Your task to perform on an android device: check battery use Image 0: 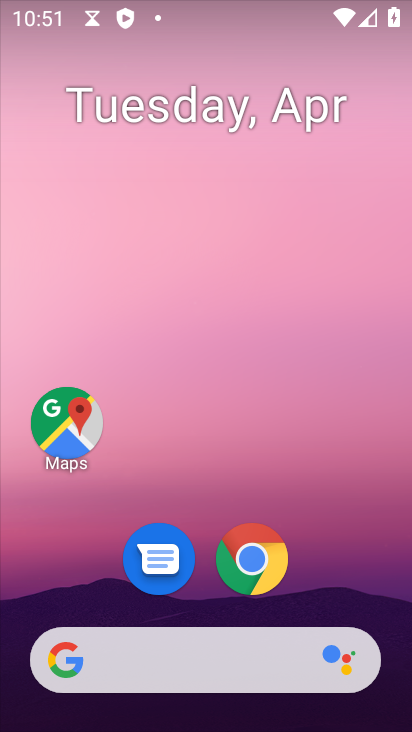
Step 0: drag from (328, 457) to (278, 79)
Your task to perform on an android device: check battery use Image 1: 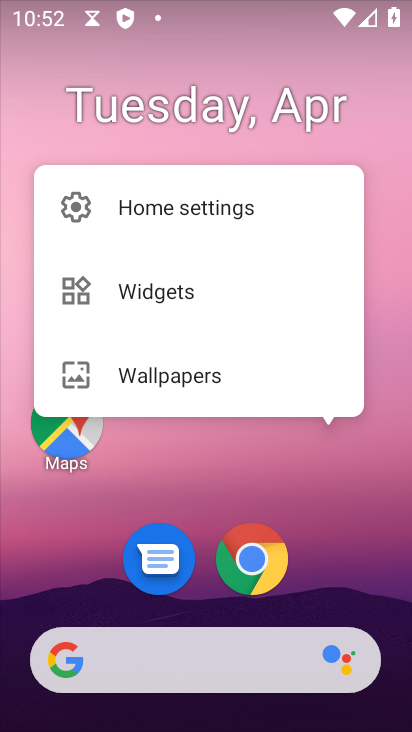
Step 1: drag from (348, 594) to (332, 23)
Your task to perform on an android device: check battery use Image 2: 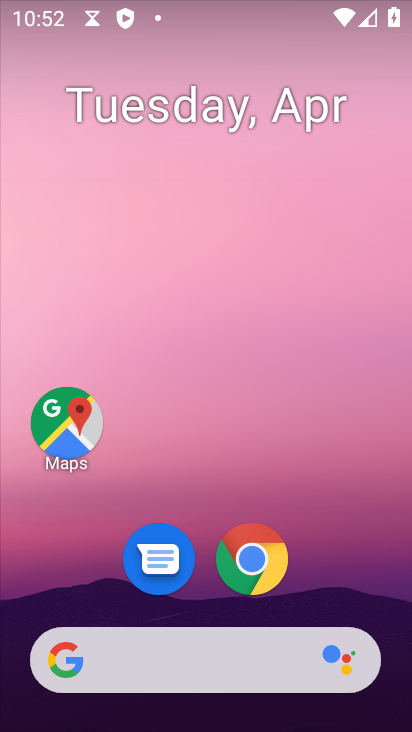
Step 2: drag from (334, 581) to (301, 4)
Your task to perform on an android device: check battery use Image 3: 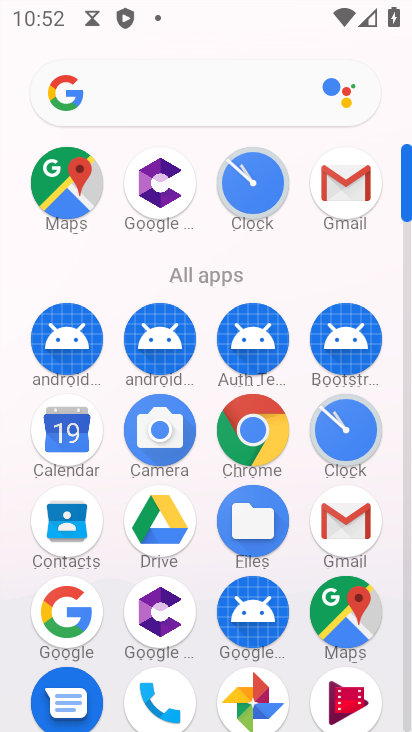
Step 3: drag from (303, 666) to (297, 220)
Your task to perform on an android device: check battery use Image 4: 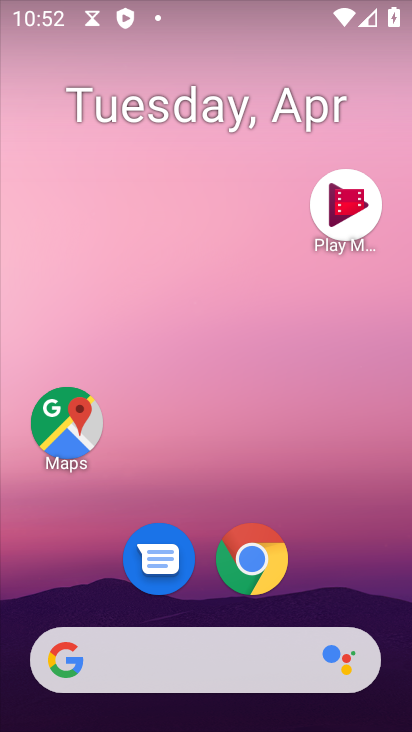
Step 4: drag from (332, 483) to (288, 81)
Your task to perform on an android device: check battery use Image 5: 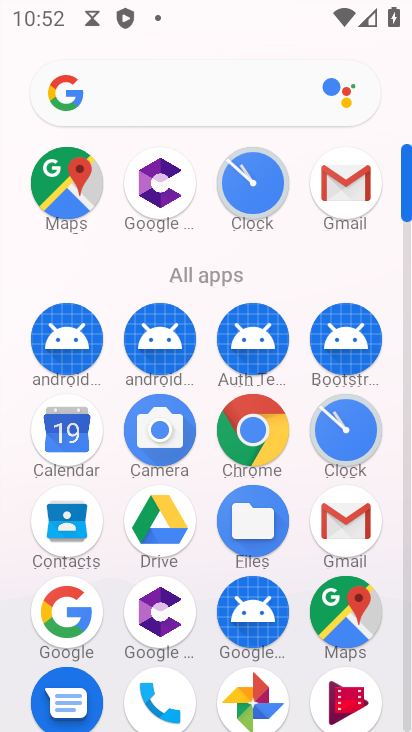
Step 5: drag from (281, 468) to (293, 166)
Your task to perform on an android device: check battery use Image 6: 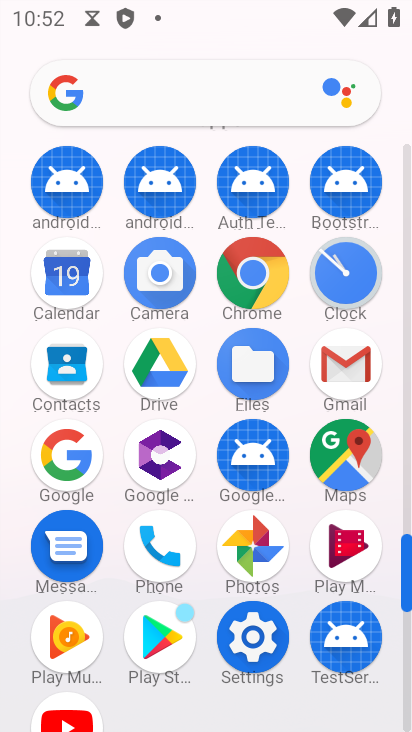
Step 6: click (263, 627)
Your task to perform on an android device: check battery use Image 7: 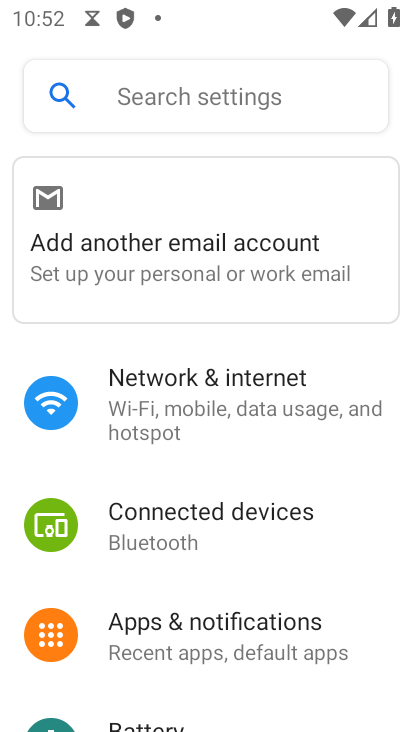
Step 7: click (213, 719)
Your task to perform on an android device: check battery use Image 8: 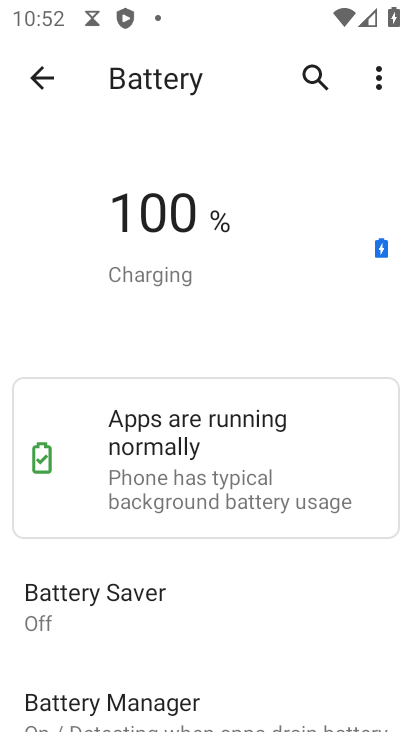
Step 8: click (374, 74)
Your task to perform on an android device: check battery use Image 9: 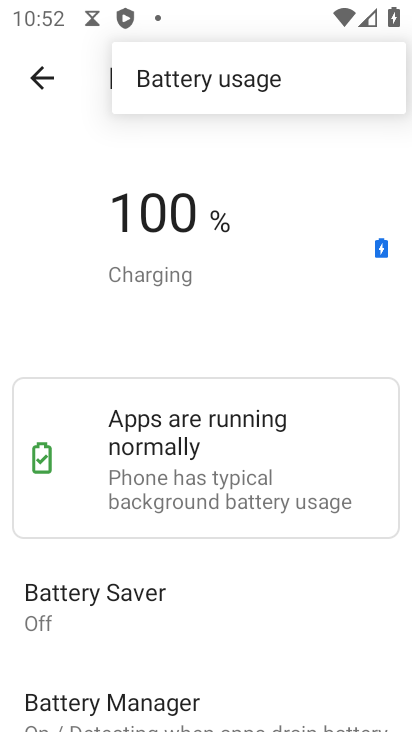
Step 9: click (253, 88)
Your task to perform on an android device: check battery use Image 10: 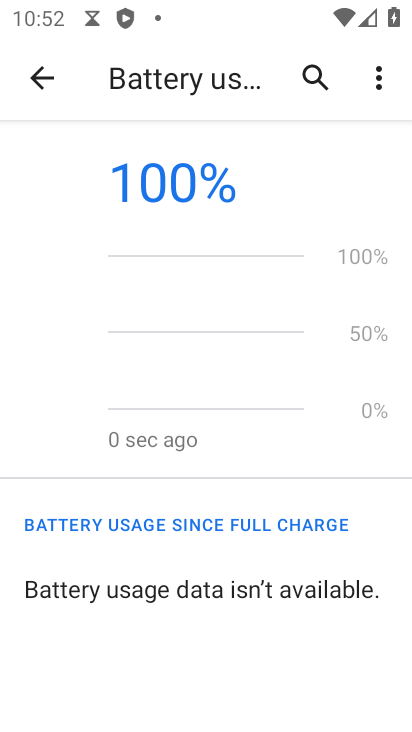
Step 10: task complete